Your task to perform on an android device: check data usage Image 0: 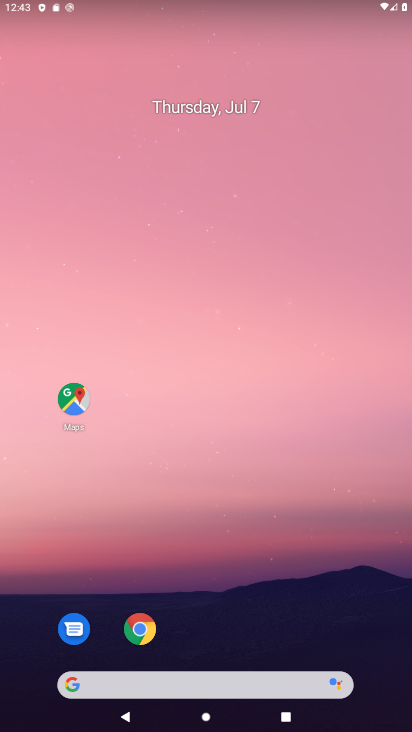
Step 0: drag from (377, 577) to (281, 160)
Your task to perform on an android device: check data usage Image 1: 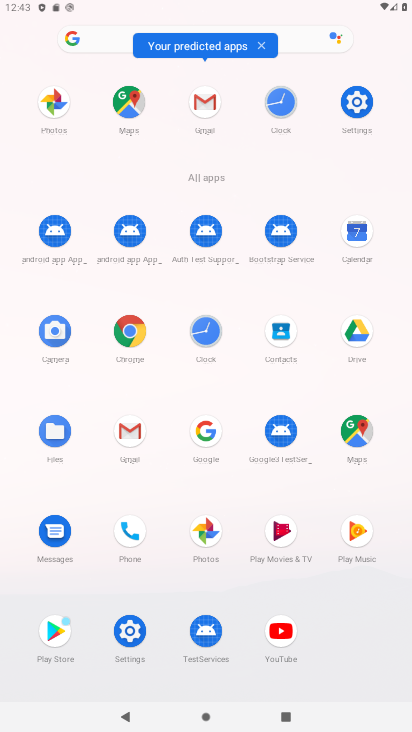
Step 1: click (140, 623)
Your task to perform on an android device: check data usage Image 2: 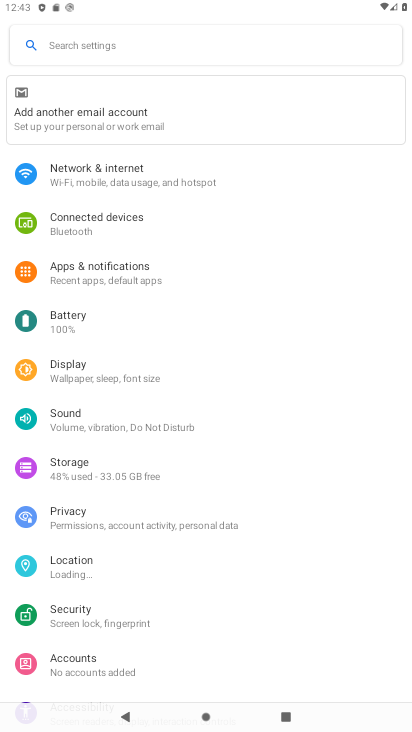
Step 2: click (177, 165)
Your task to perform on an android device: check data usage Image 3: 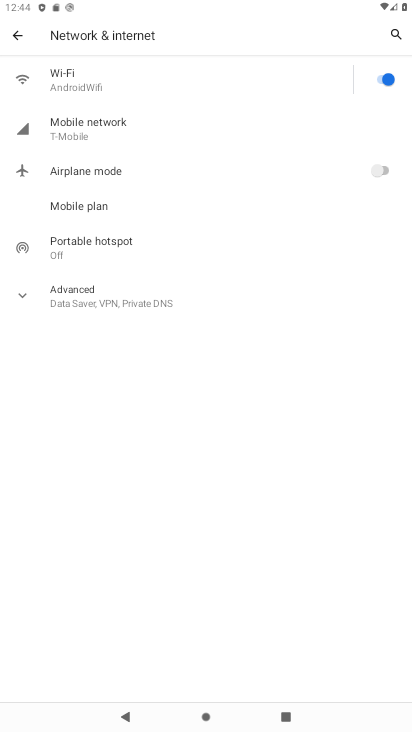
Step 3: click (174, 113)
Your task to perform on an android device: check data usage Image 4: 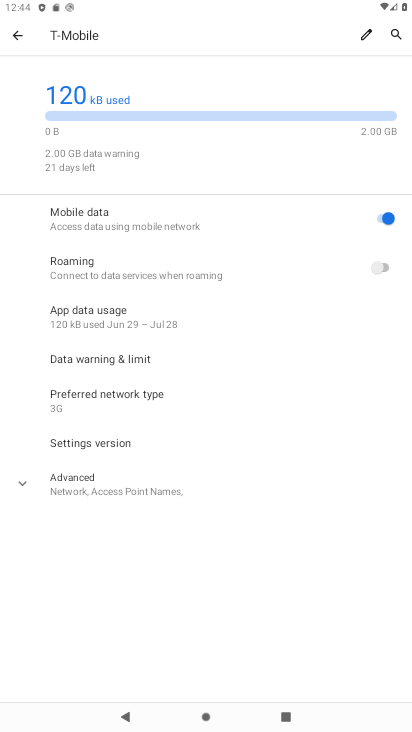
Step 4: task complete